Your task to perform on an android device: delete browsing data in the chrome app Image 0: 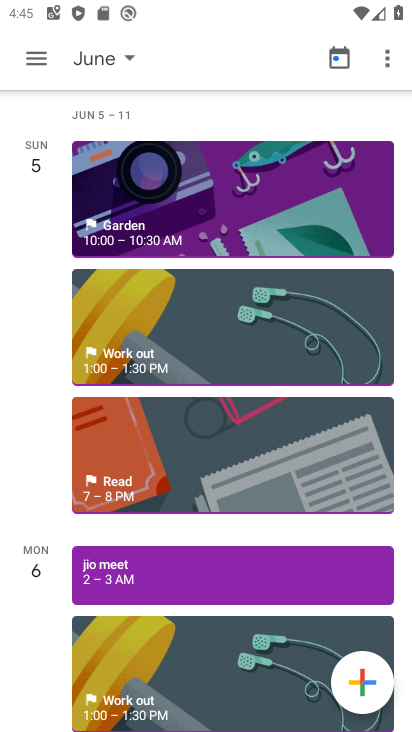
Step 0: press home button
Your task to perform on an android device: delete browsing data in the chrome app Image 1: 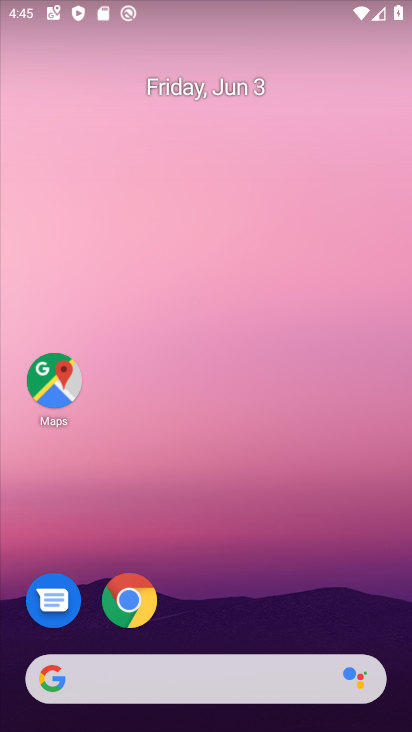
Step 1: click (129, 610)
Your task to perform on an android device: delete browsing data in the chrome app Image 2: 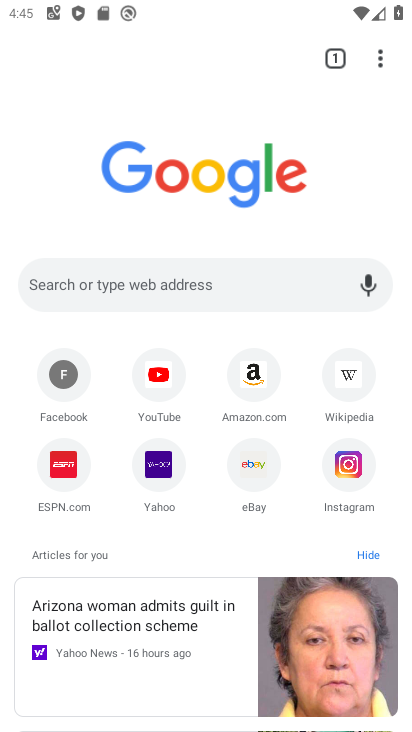
Step 2: click (385, 55)
Your task to perform on an android device: delete browsing data in the chrome app Image 3: 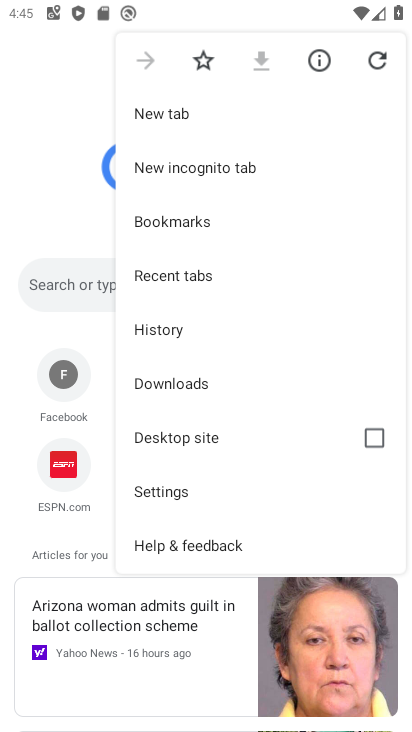
Step 3: click (165, 334)
Your task to perform on an android device: delete browsing data in the chrome app Image 4: 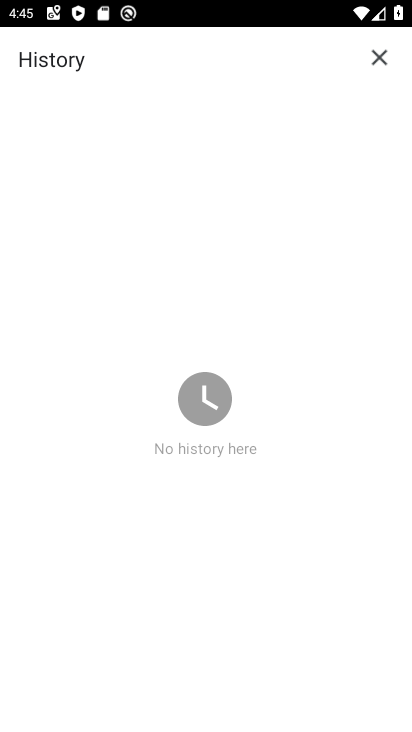
Step 4: task complete